Your task to perform on an android device: turn off wifi Image 0: 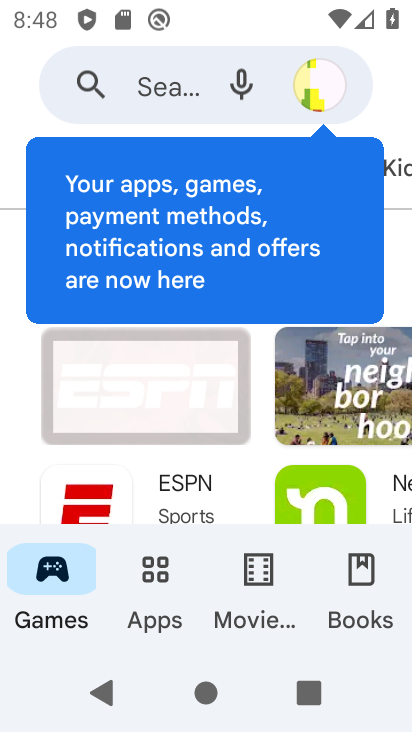
Step 0: press home button
Your task to perform on an android device: turn off wifi Image 1: 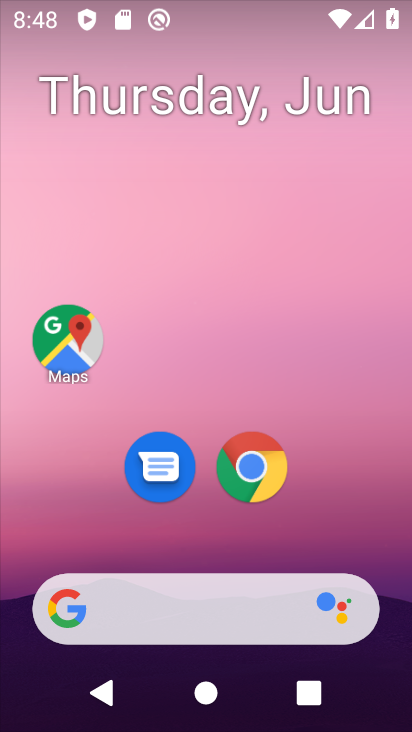
Step 1: drag from (95, 543) to (216, 119)
Your task to perform on an android device: turn off wifi Image 2: 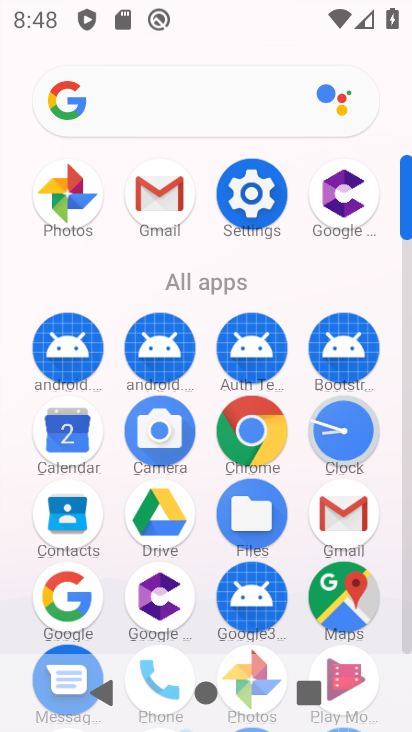
Step 2: drag from (156, 578) to (197, 354)
Your task to perform on an android device: turn off wifi Image 3: 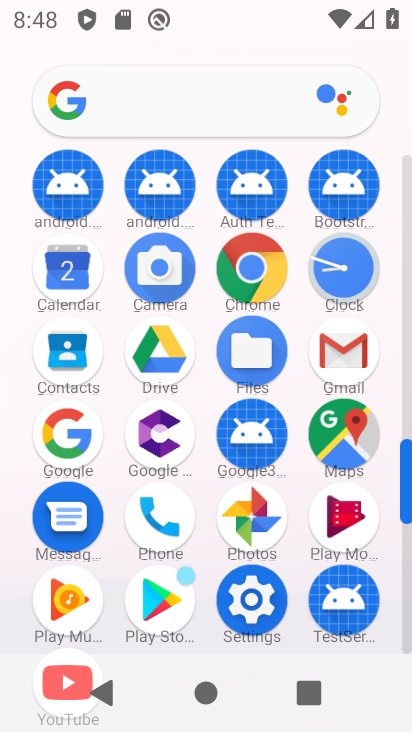
Step 3: click (264, 618)
Your task to perform on an android device: turn off wifi Image 4: 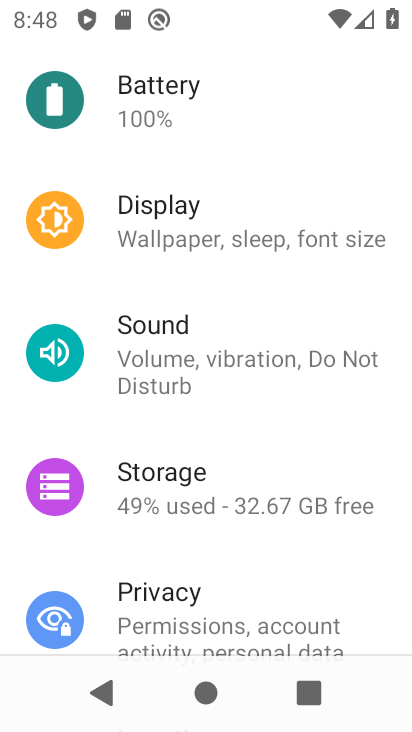
Step 4: drag from (313, 161) to (279, 600)
Your task to perform on an android device: turn off wifi Image 5: 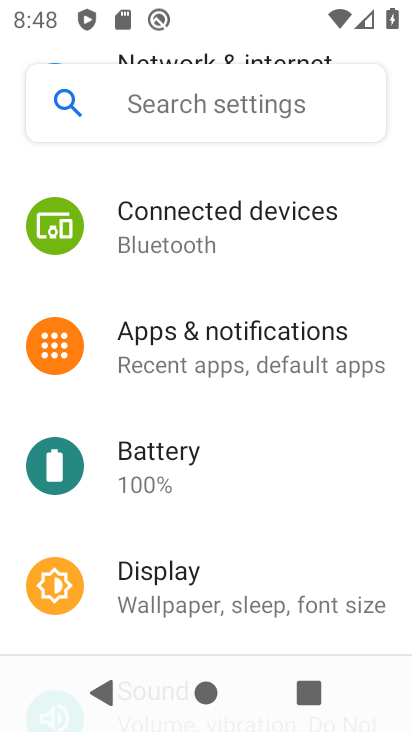
Step 5: drag from (266, 254) to (240, 542)
Your task to perform on an android device: turn off wifi Image 6: 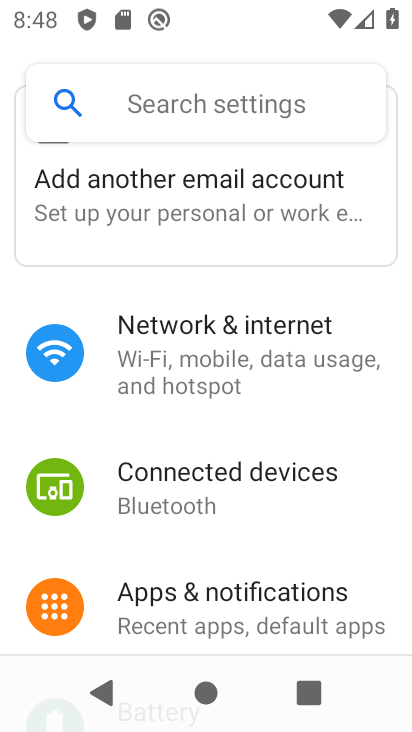
Step 6: click (237, 350)
Your task to perform on an android device: turn off wifi Image 7: 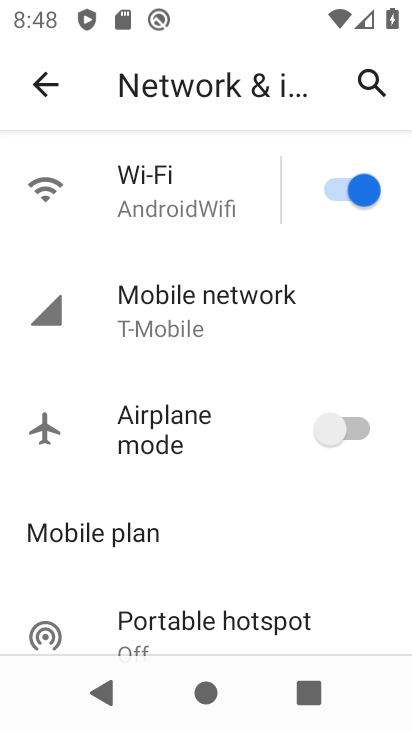
Step 7: click (331, 188)
Your task to perform on an android device: turn off wifi Image 8: 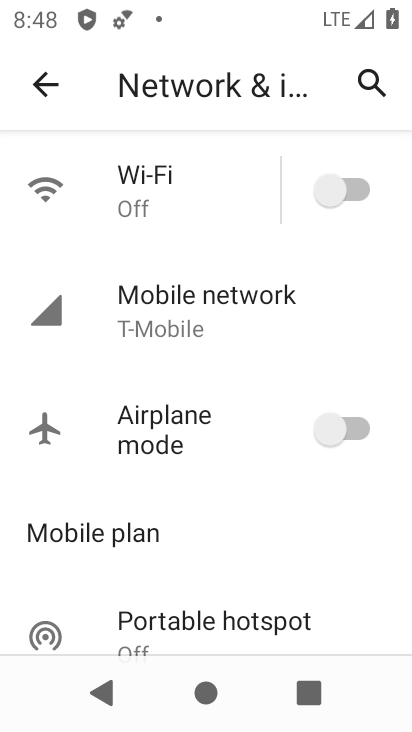
Step 8: task complete